Your task to perform on an android device: When is my next meeting? Image 0: 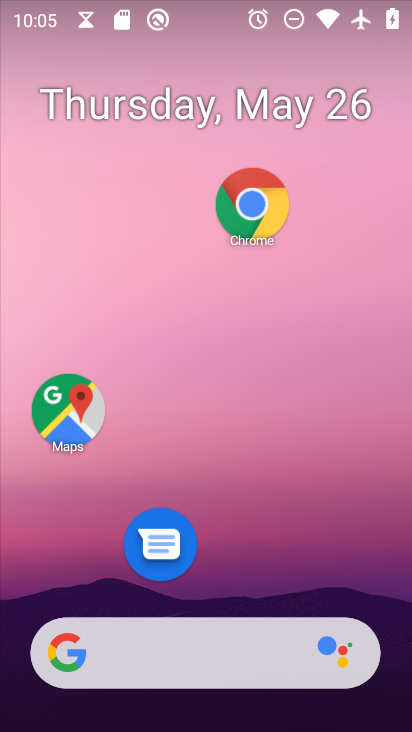
Step 0: press home button
Your task to perform on an android device: When is my next meeting? Image 1: 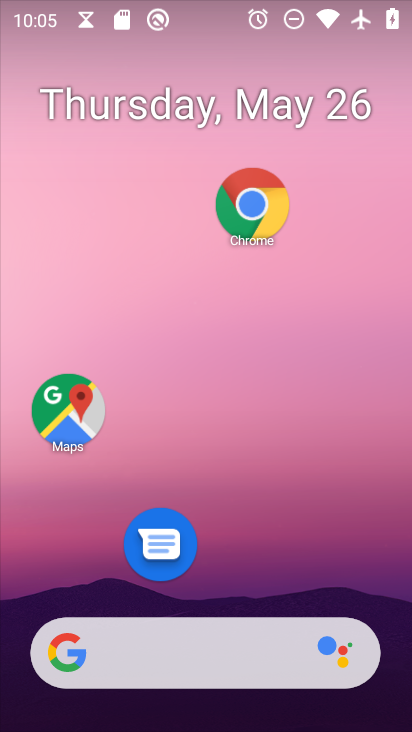
Step 1: drag from (228, 589) to (236, 6)
Your task to perform on an android device: When is my next meeting? Image 2: 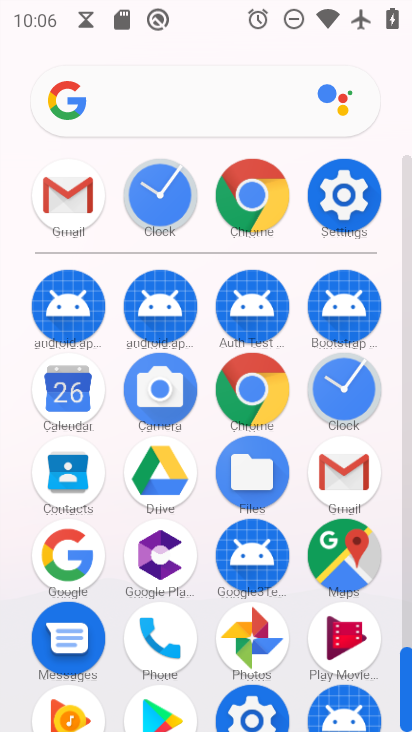
Step 2: click (71, 382)
Your task to perform on an android device: When is my next meeting? Image 3: 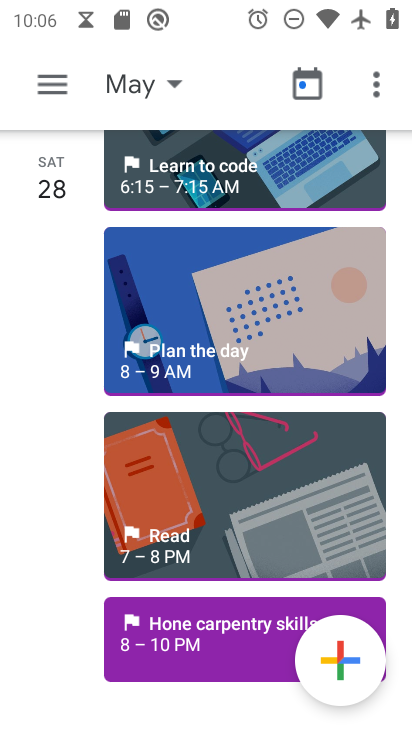
Step 3: task complete